Your task to perform on an android device: Open calendar and show me the fourth week of next month Image 0: 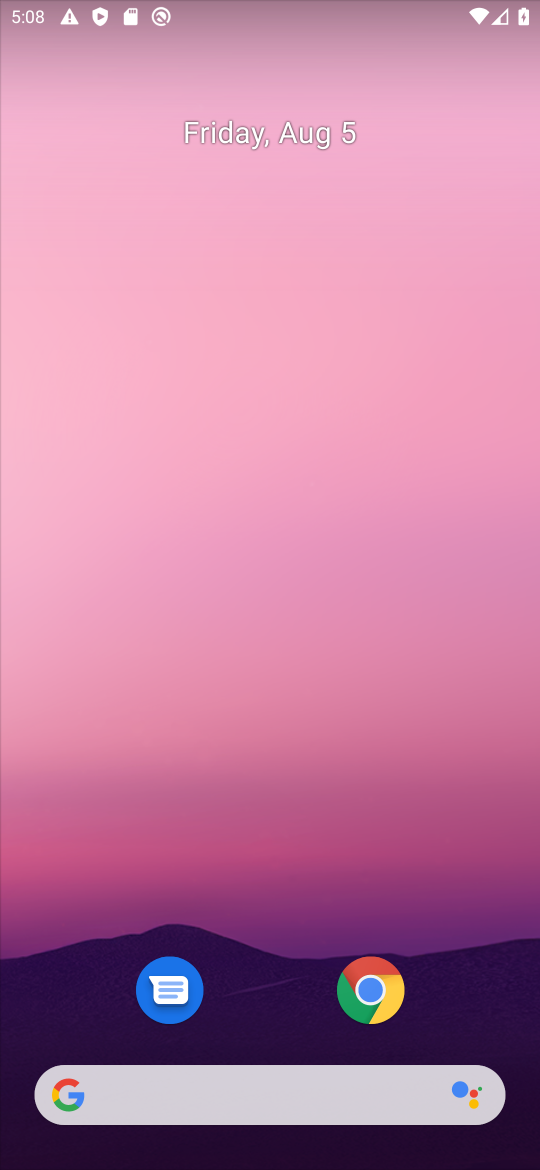
Step 0: drag from (283, 1059) to (238, 393)
Your task to perform on an android device: Open calendar and show me the fourth week of next month Image 1: 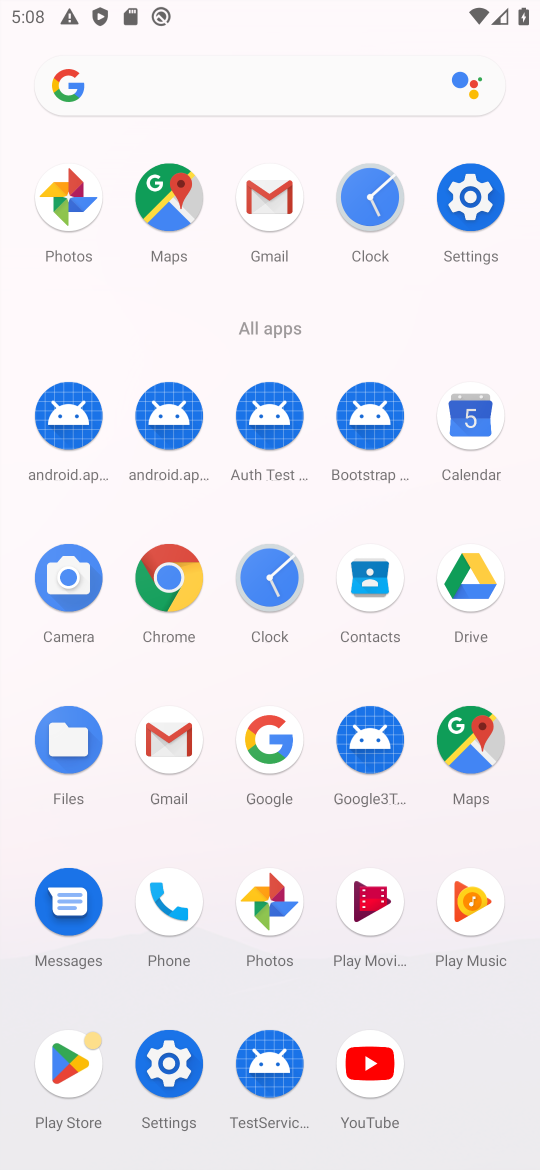
Step 1: click (465, 440)
Your task to perform on an android device: Open calendar and show me the fourth week of next month Image 2: 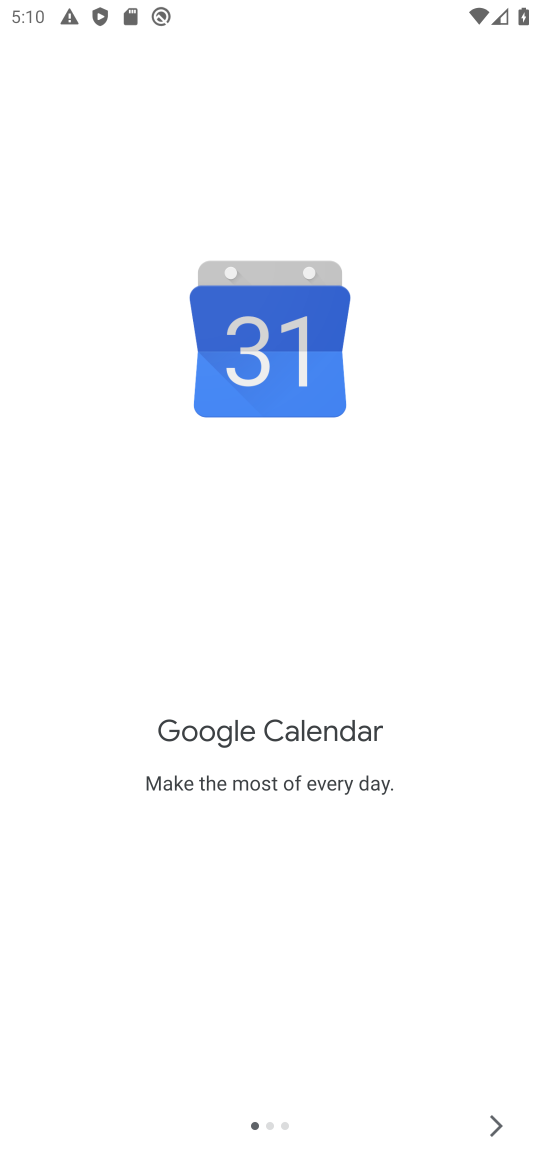
Step 2: click (478, 1133)
Your task to perform on an android device: Open calendar and show me the fourth week of next month Image 3: 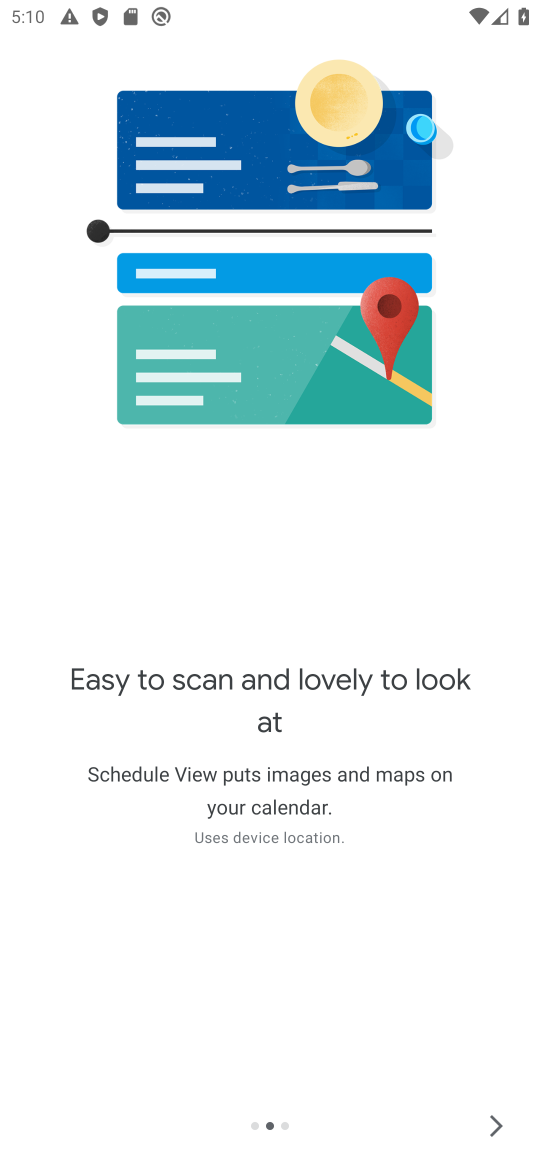
Step 3: click (486, 1129)
Your task to perform on an android device: Open calendar and show me the fourth week of next month Image 4: 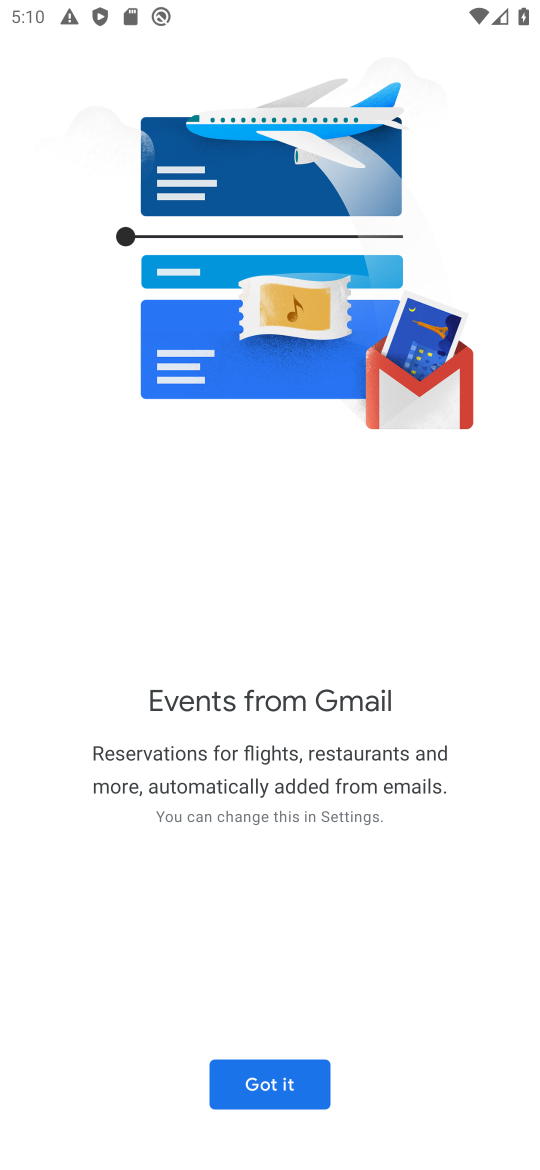
Step 4: click (279, 1059)
Your task to perform on an android device: Open calendar and show me the fourth week of next month Image 5: 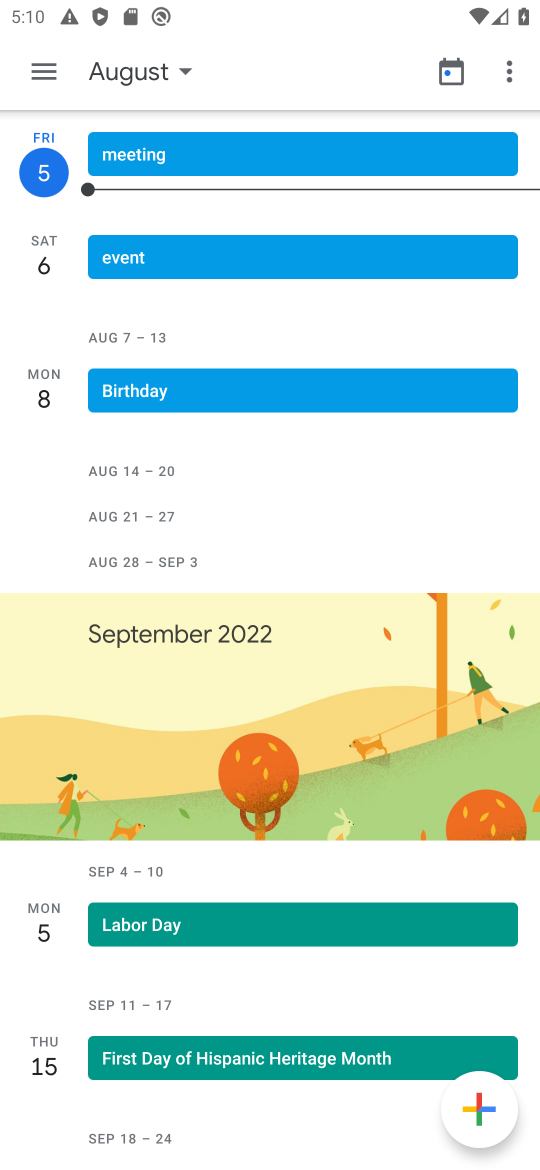
Step 5: click (154, 71)
Your task to perform on an android device: Open calendar and show me the fourth week of next month Image 6: 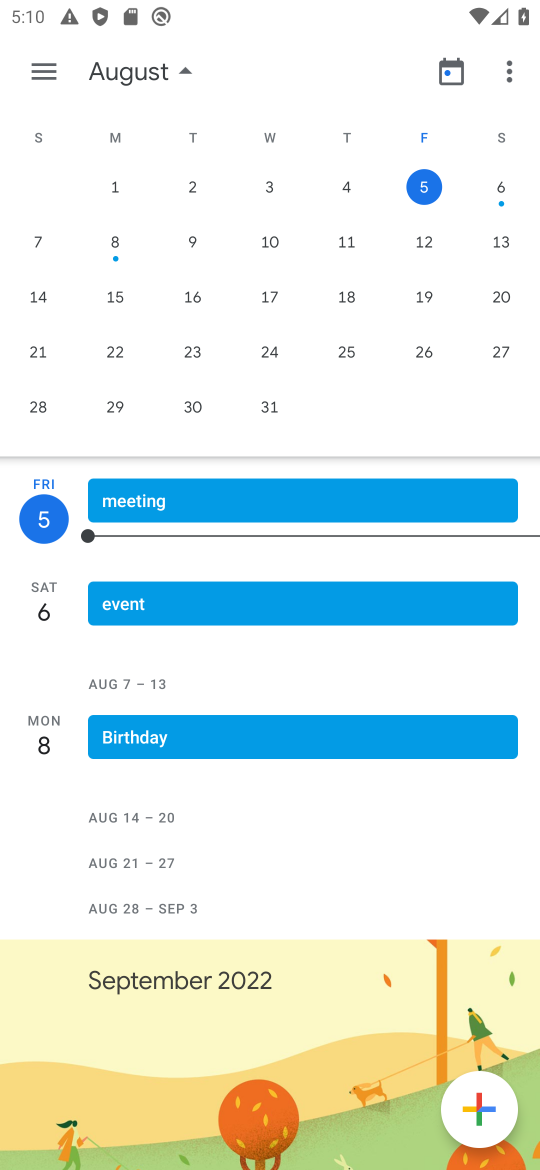
Step 6: drag from (390, 319) to (34, 320)
Your task to perform on an android device: Open calendar and show me the fourth week of next month Image 7: 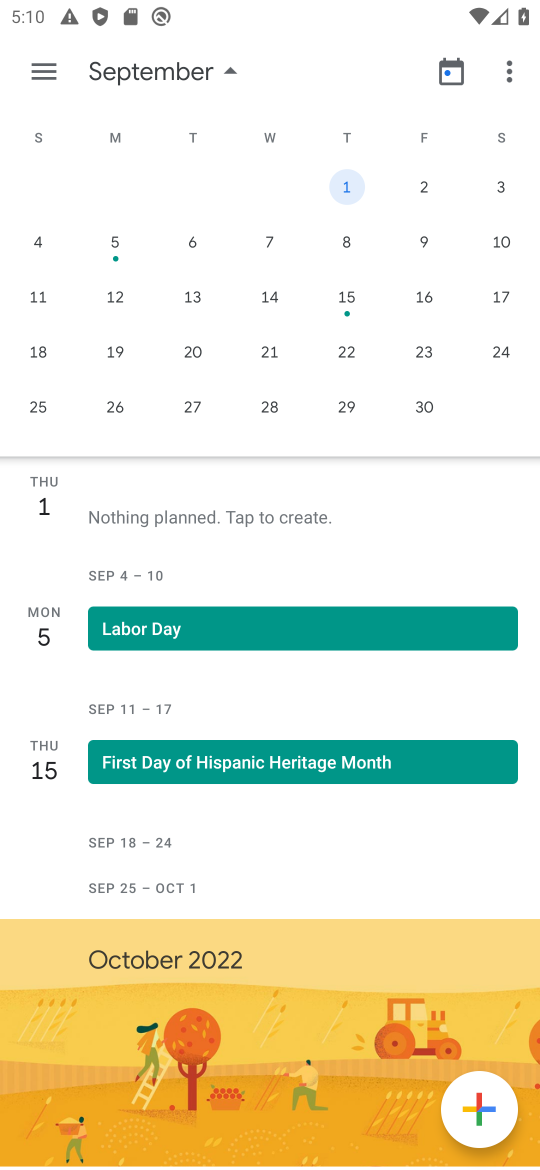
Step 7: click (24, 348)
Your task to perform on an android device: Open calendar and show me the fourth week of next month Image 8: 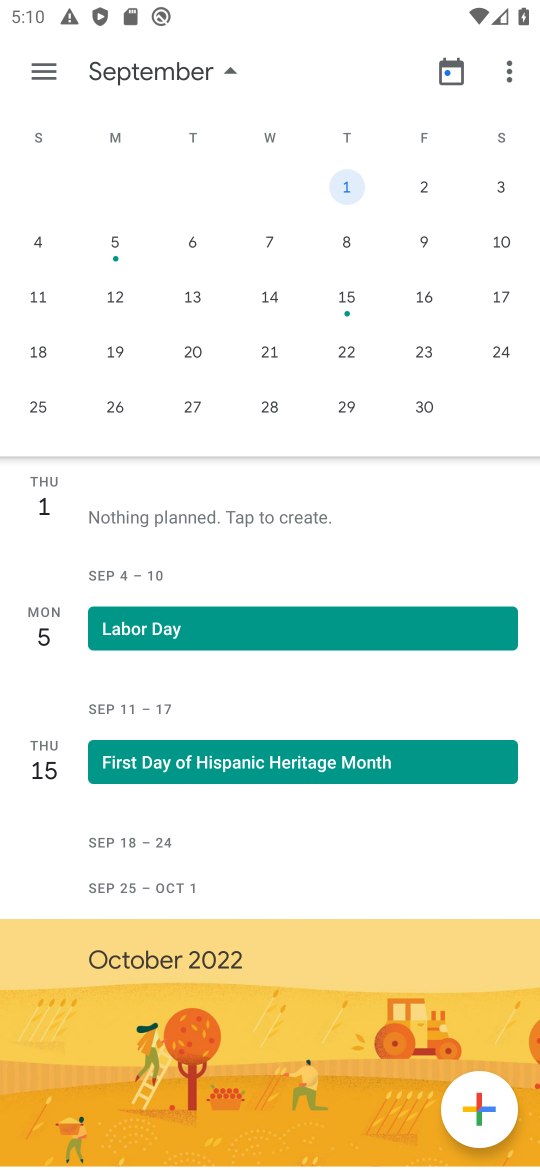
Step 8: click (46, 348)
Your task to perform on an android device: Open calendar and show me the fourth week of next month Image 9: 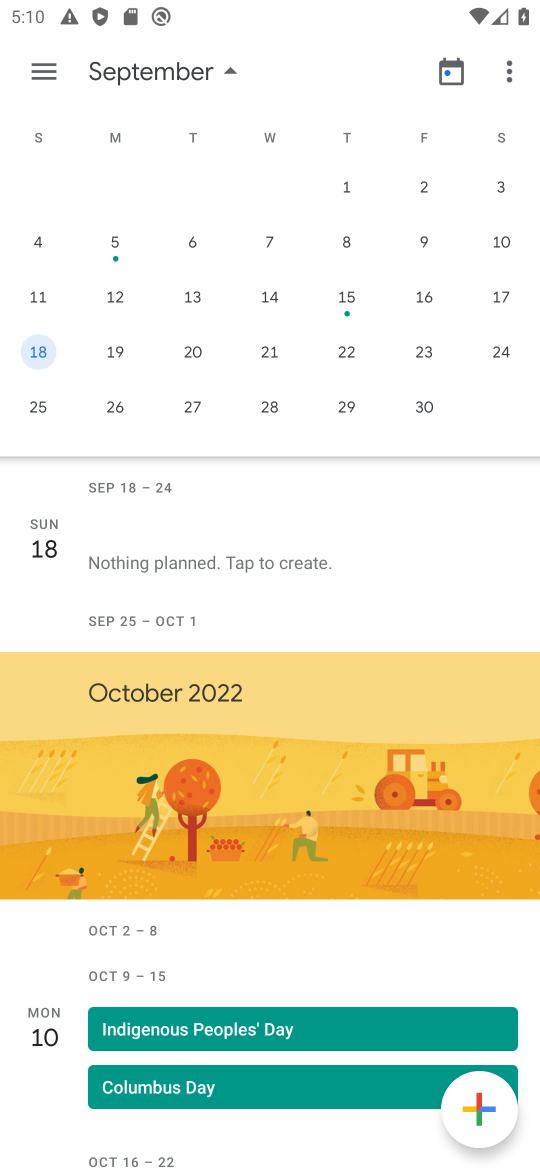
Step 9: task complete